Your task to perform on an android device: Show me popular videos on Youtube Image 0: 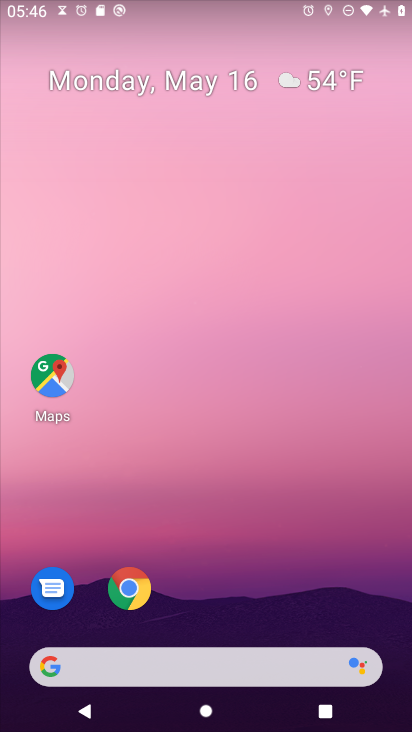
Step 0: drag from (278, 554) to (214, 13)
Your task to perform on an android device: Show me popular videos on Youtube Image 1: 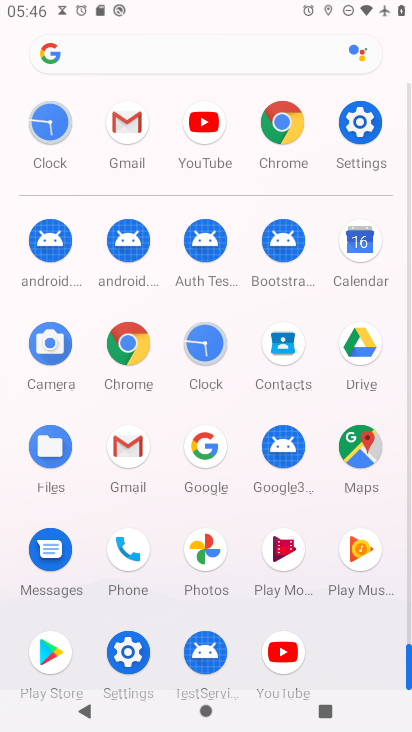
Step 1: click (287, 657)
Your task to perform on an android device: Show me popular videos on Youtube Image 2: 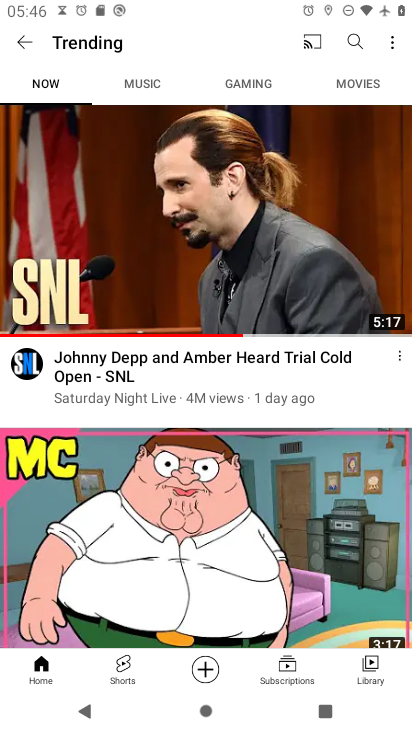
Step 2: drag from (120, 581) to (165, 202)
Your task to perform on an android device: Show me popular videos on Youtube Image 3: 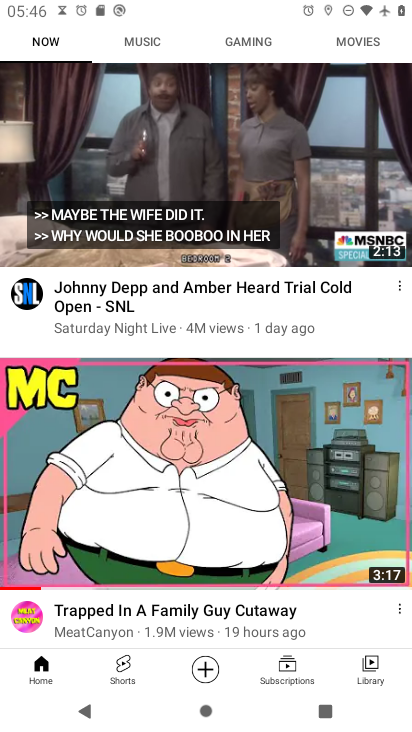
Step 3: drag from (161, 426) to (196, 187)
Your task to perform on an android device: Show me popular videos on Youtube Image 4: 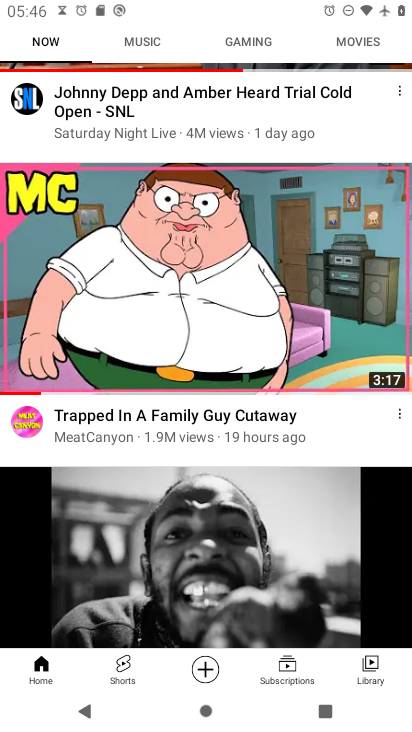
Step 4: drag from (196, 189) to (171, 351)
Your task to perform on an android device: Show me popular videos on Youtube Image 5: 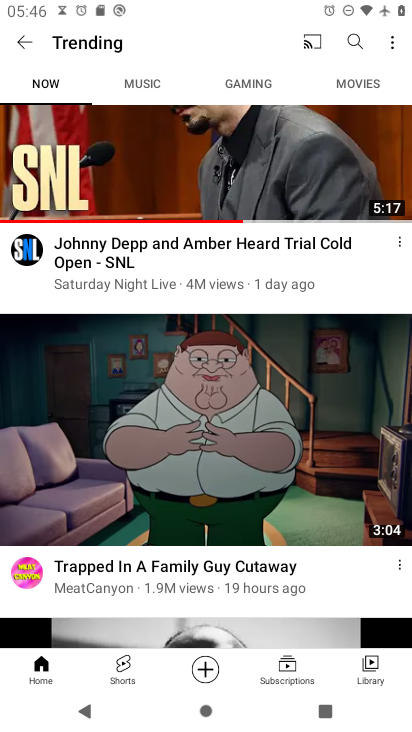
Step 5: click (131, 488)
Your task to perform on an android device: Show me popular videos on Youtube Image 6: 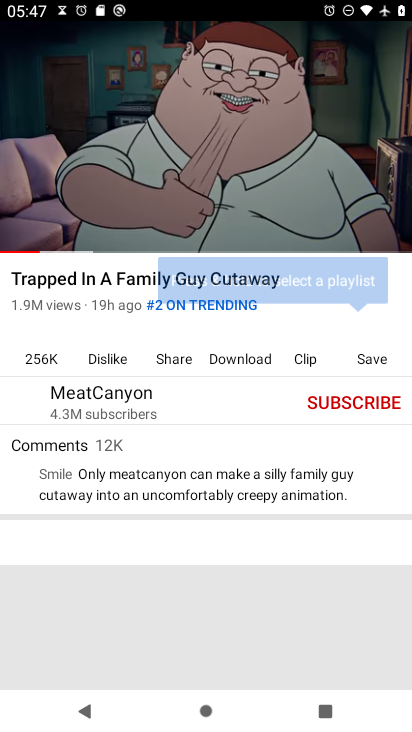
Step 6: task complete